Your task to perform on an android device: Clear the cart on walmart. Add logitech g910 to the cart on walmart Image 0: 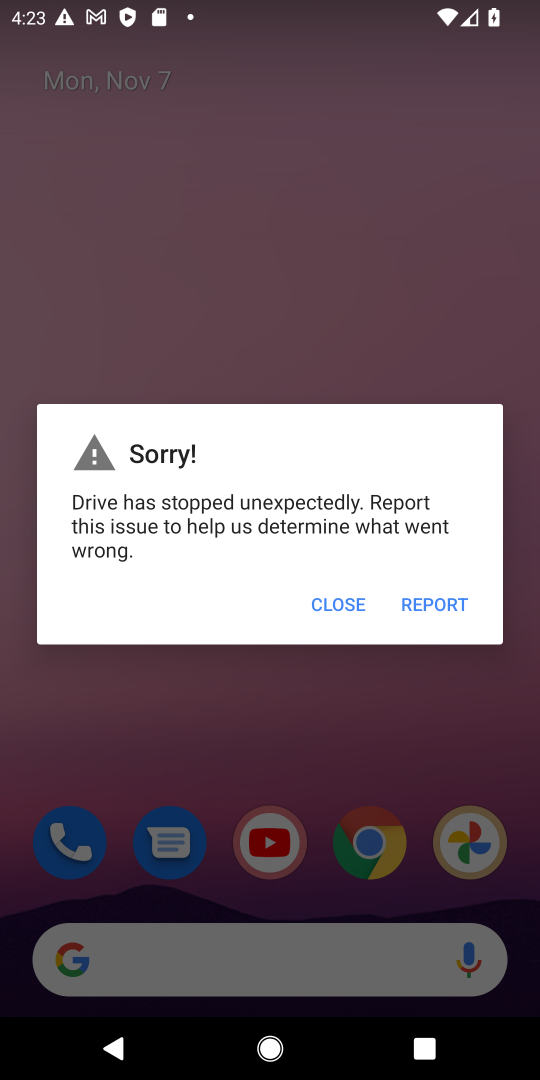
Step 0: click (351, 602)
Your task to perform on an android device: Clear the cart on walmart. Add logitech g910 to the cart on walmart Image 1: 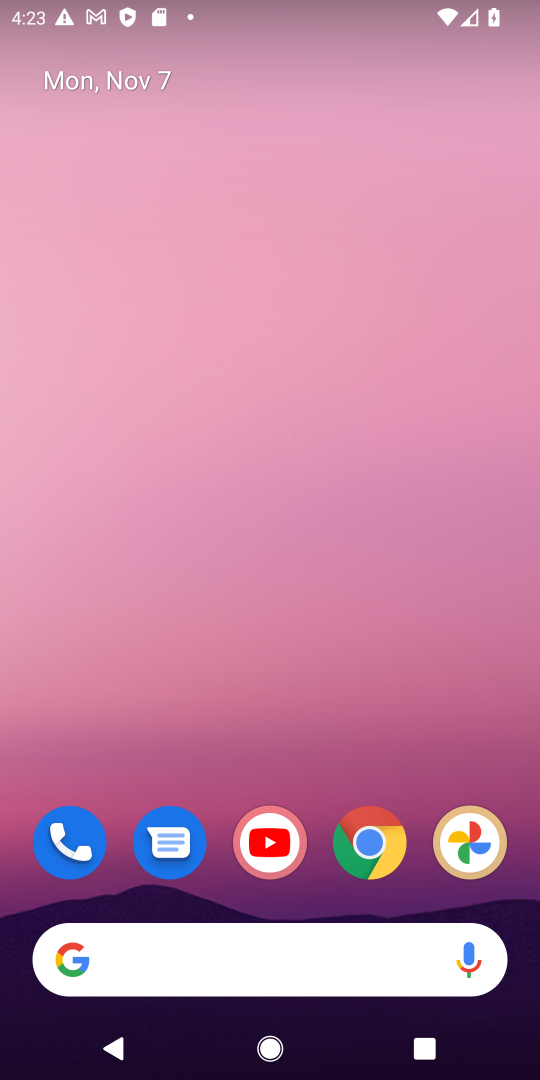
Step 1: drag from (366, 762) to (271, 2)
Your task to perform on an android device: Clear the cart on walmart. Add logitech g910 to the cart on walmart Image 2: 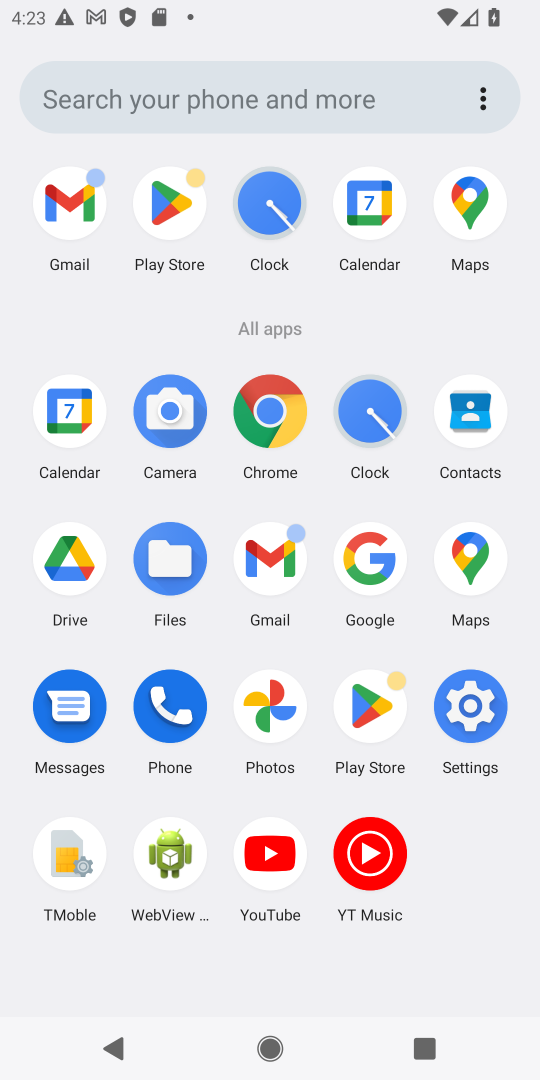
Step 2: click (279, 428)
Your task to perform on an android device: Clear the cart on walmart. Add logitech g910 to the cart on walmart Image 3: 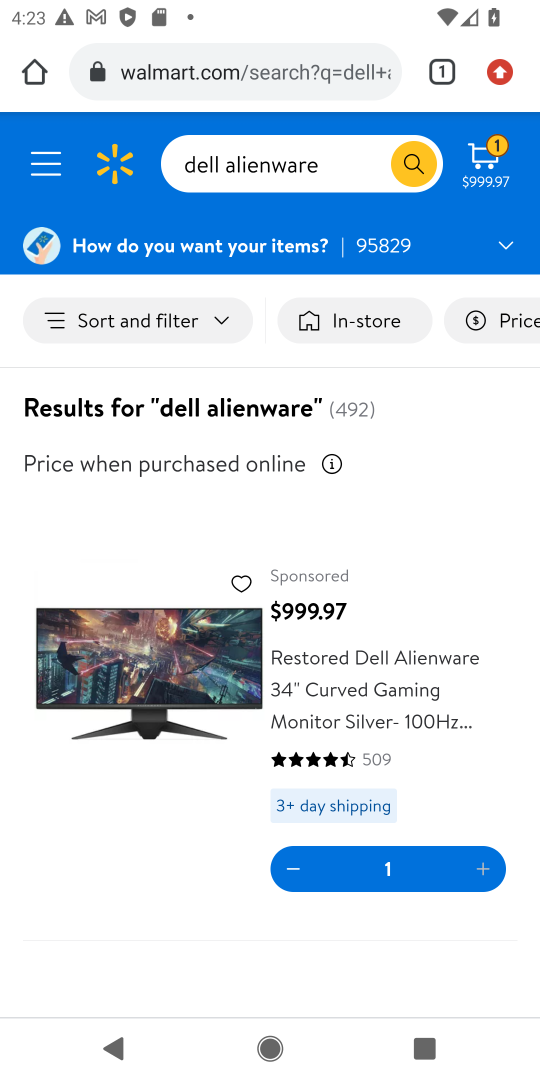
Step 3: click (354, 170)
Your task to perform on an android device: Clear the cart on walmart. Add logitech g910 to the cart on walmart Image 4: 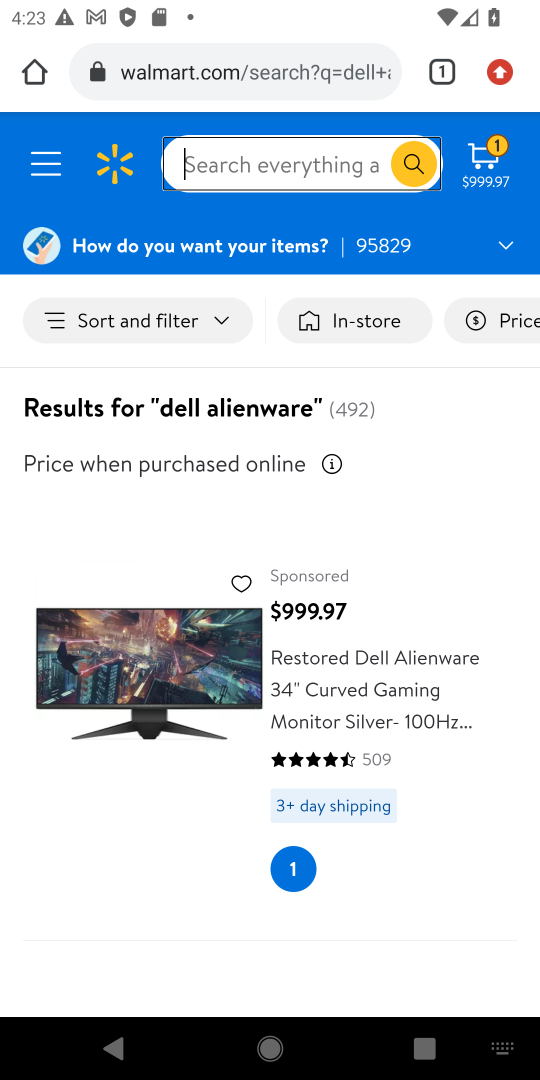
Step 4: click (481, 145)
Your task to perform on an android device: Clear the cart on walmart. Add logitech g910 to the cart on walmart Image 5: 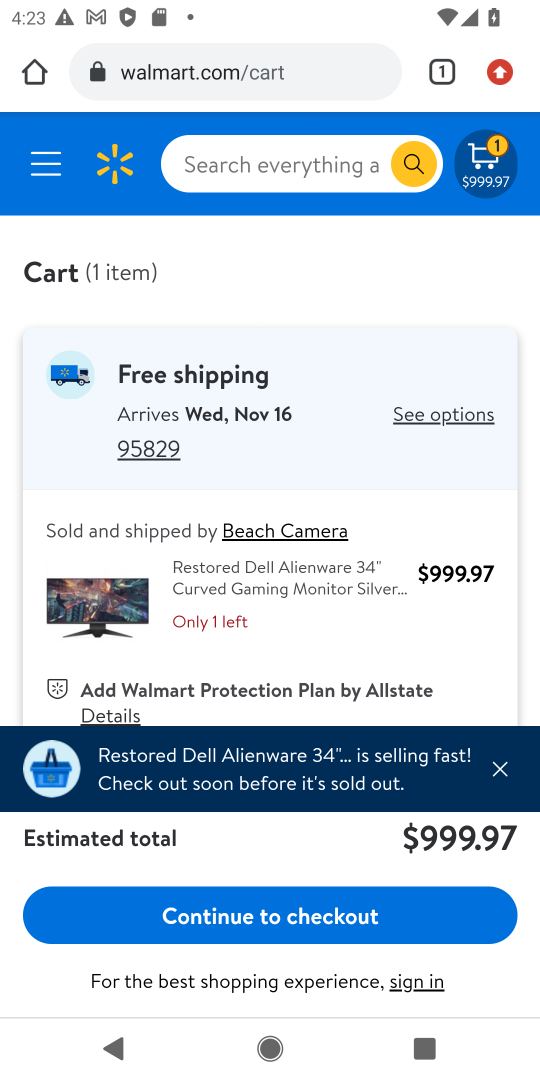
Step 5: drag from (344, 700) to (326, 276)
Your task to perform on an android device: Clear the cart on walmart. Add logitech g910 to the cart on walmart Image 6: 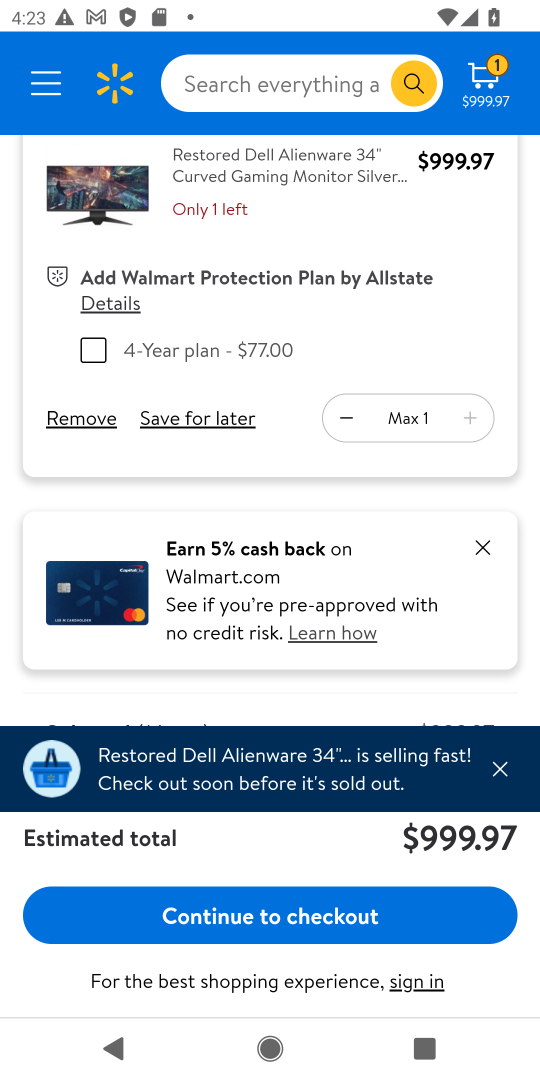
Step 6: click (67, 422)
Your task to perform on an android device: Clear the cart on walmart. Add logitech g910 to the cart on walmart Image 7: 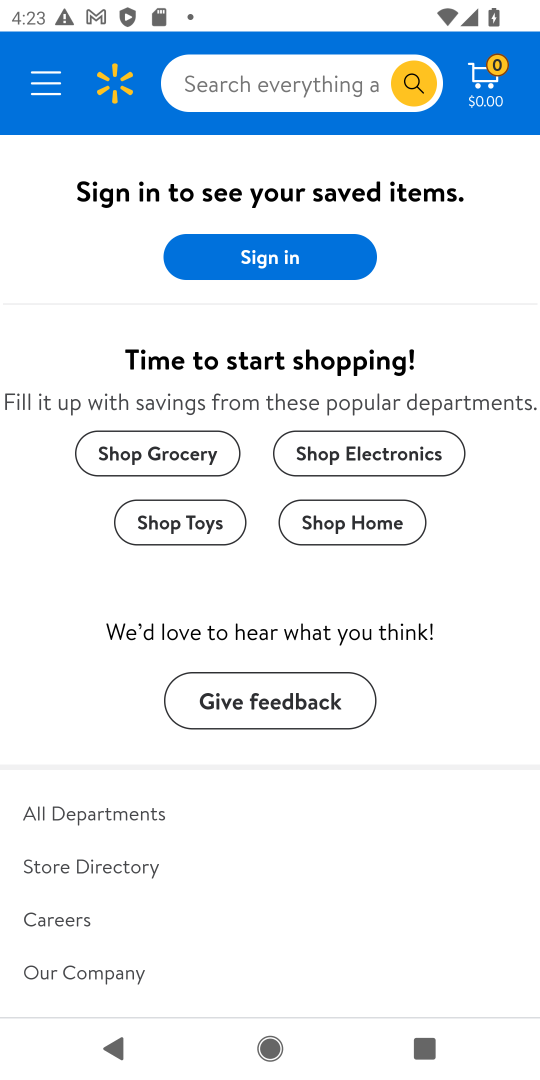
Step 7: click (254, 85)
Your task to perform on an android device: Clear the cart on walmart. Add logitech g910 to the cart on walmart Image 8: 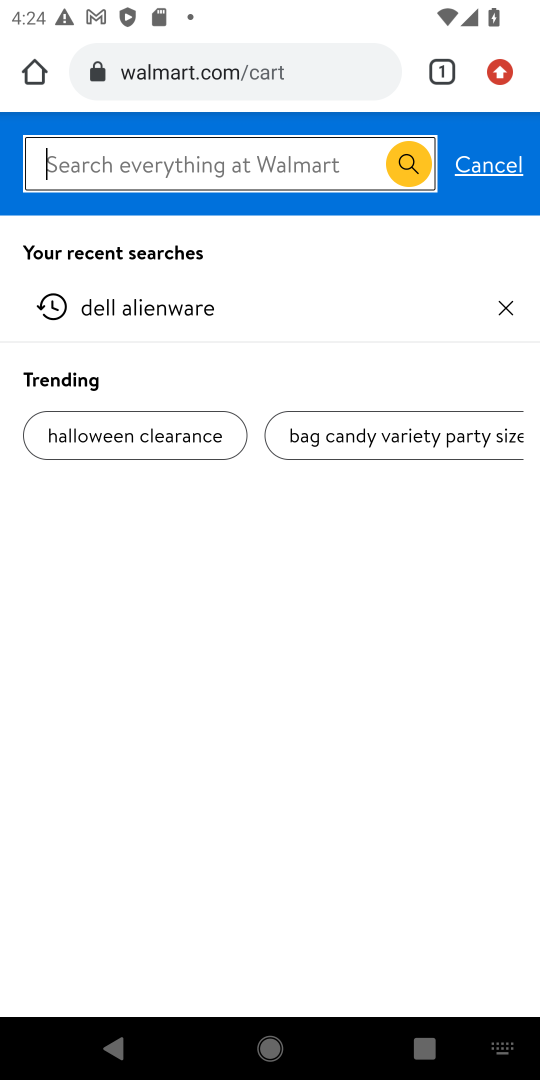
Step 8: type "logitech g910"
Your task to perform on an android device: Clear the cart on walmart. Add logitech g910 to the cart on walmart Image 9: 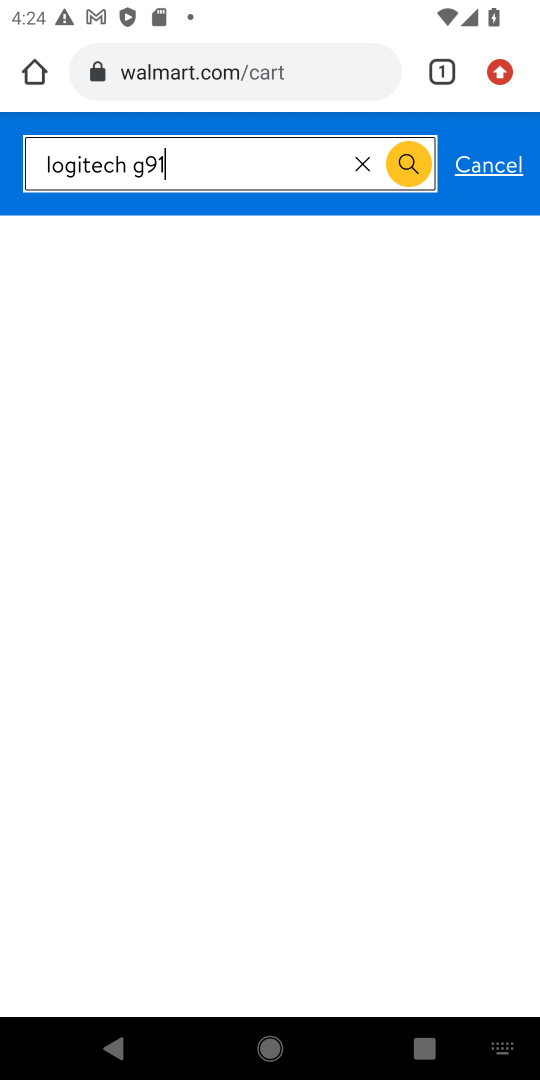
Step 9: press enter
Your task to perform on an android device: Clear the cart on walmart. Add logitech g910 to the cart on walmart Image 10: 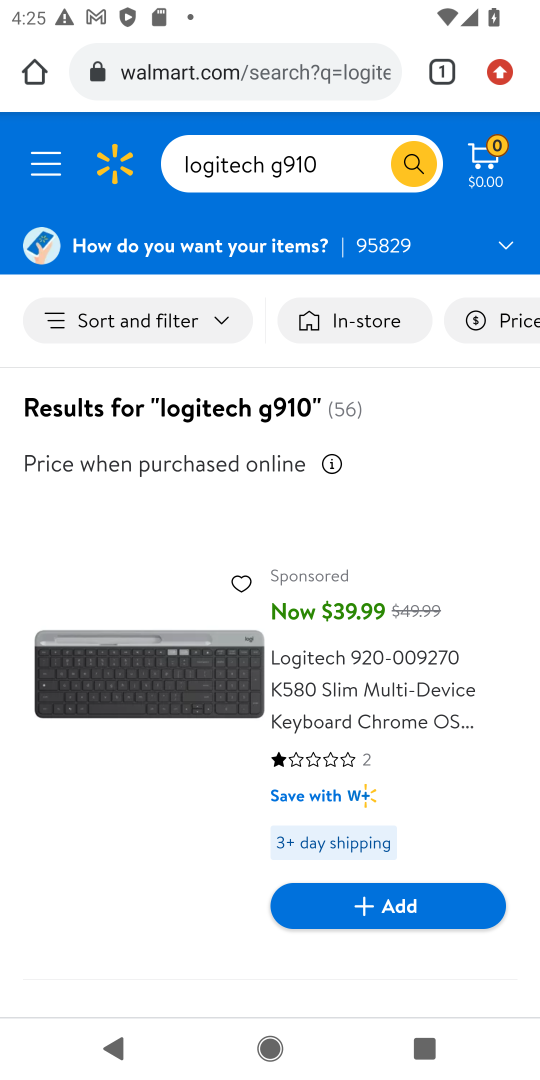
Step 10: click (341, 926)
Your task to perform on an android device: Clear the cart on walmart. Add logitech g910 to the cart on walmart Image 11: 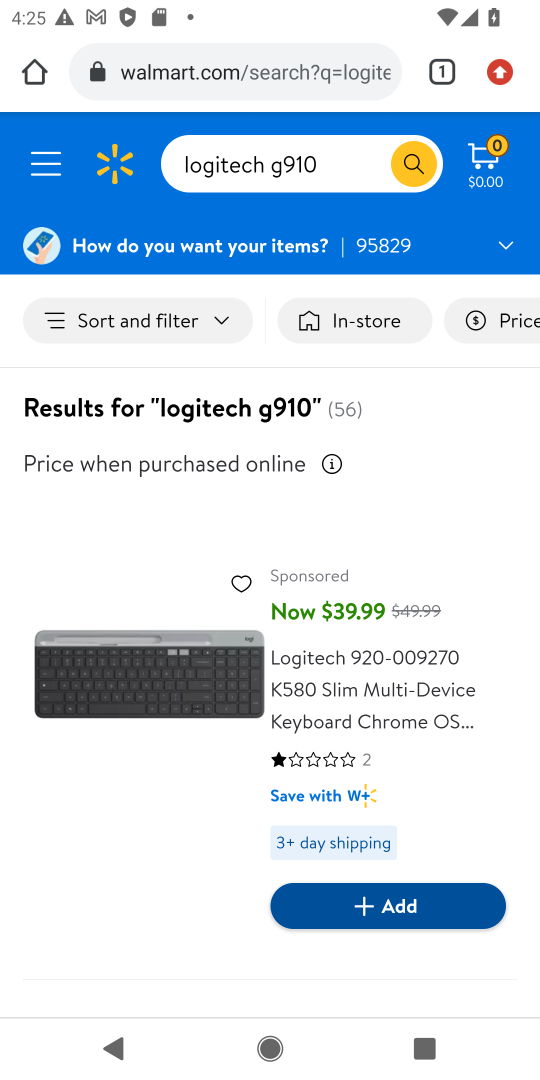
Step 11: click (366, 905)
Your task to perform on an android device: Clear the cart on walmart. Add logitech g910 to the cart on walmart Image 12: 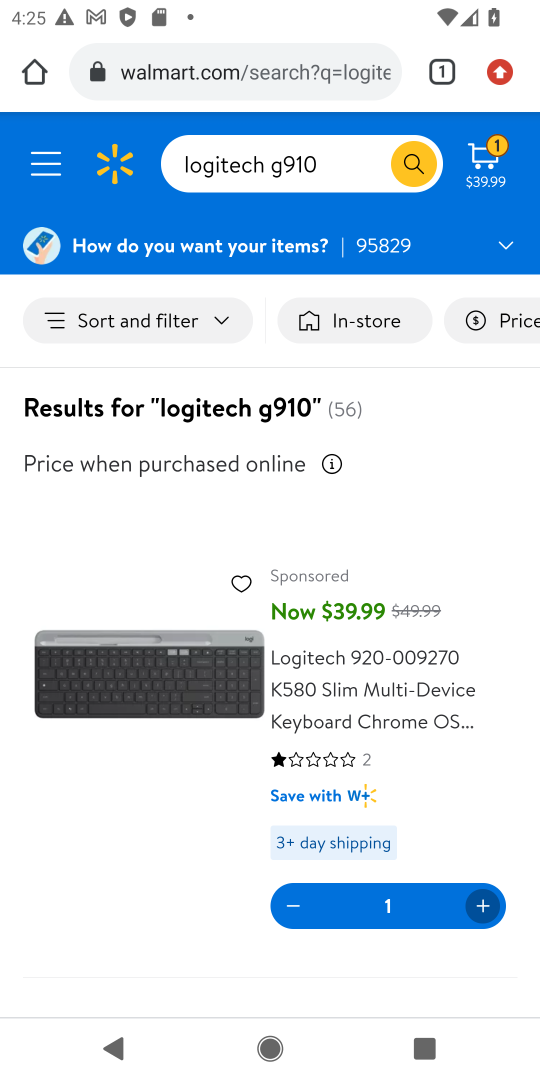
Step 12: click (478, 137)
Your task to perform on an android device: Clear the cart on walmart. Add logitech g910 to the cart on walmart Image 13: 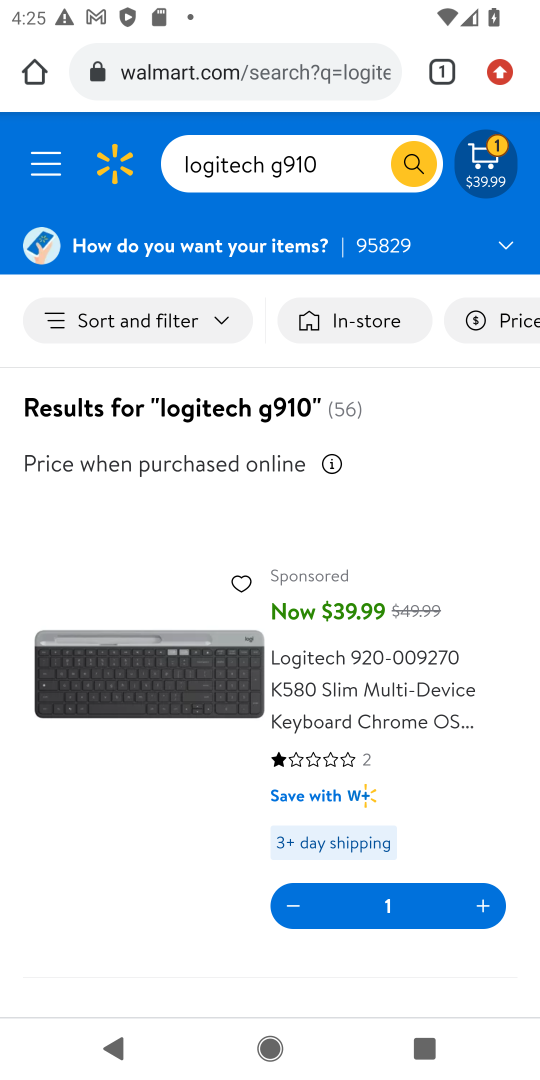
Step 13: task complete